Your task to perform on an android device: turn off sleep mode Image 0: 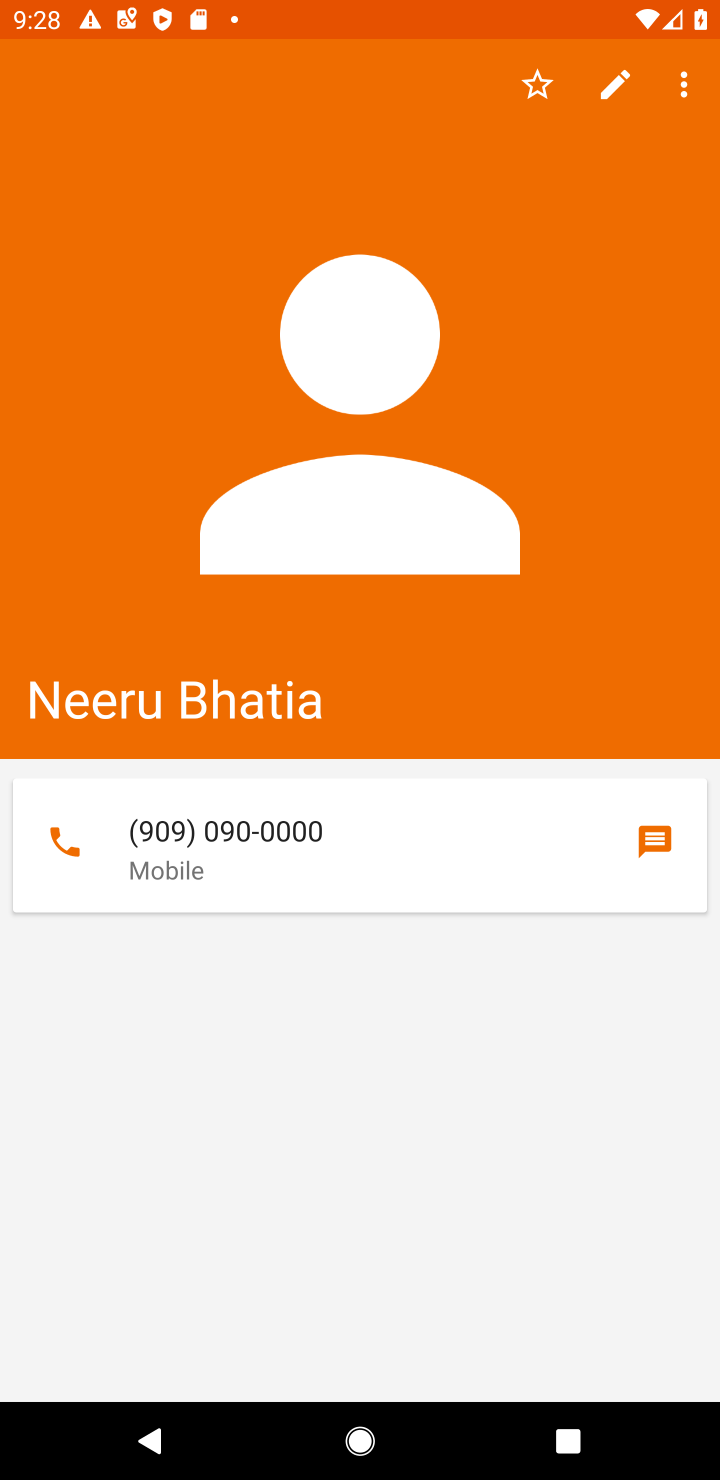
Step 0: press home button
Your task to perform on an android device: turn off sleep mode Image 1: 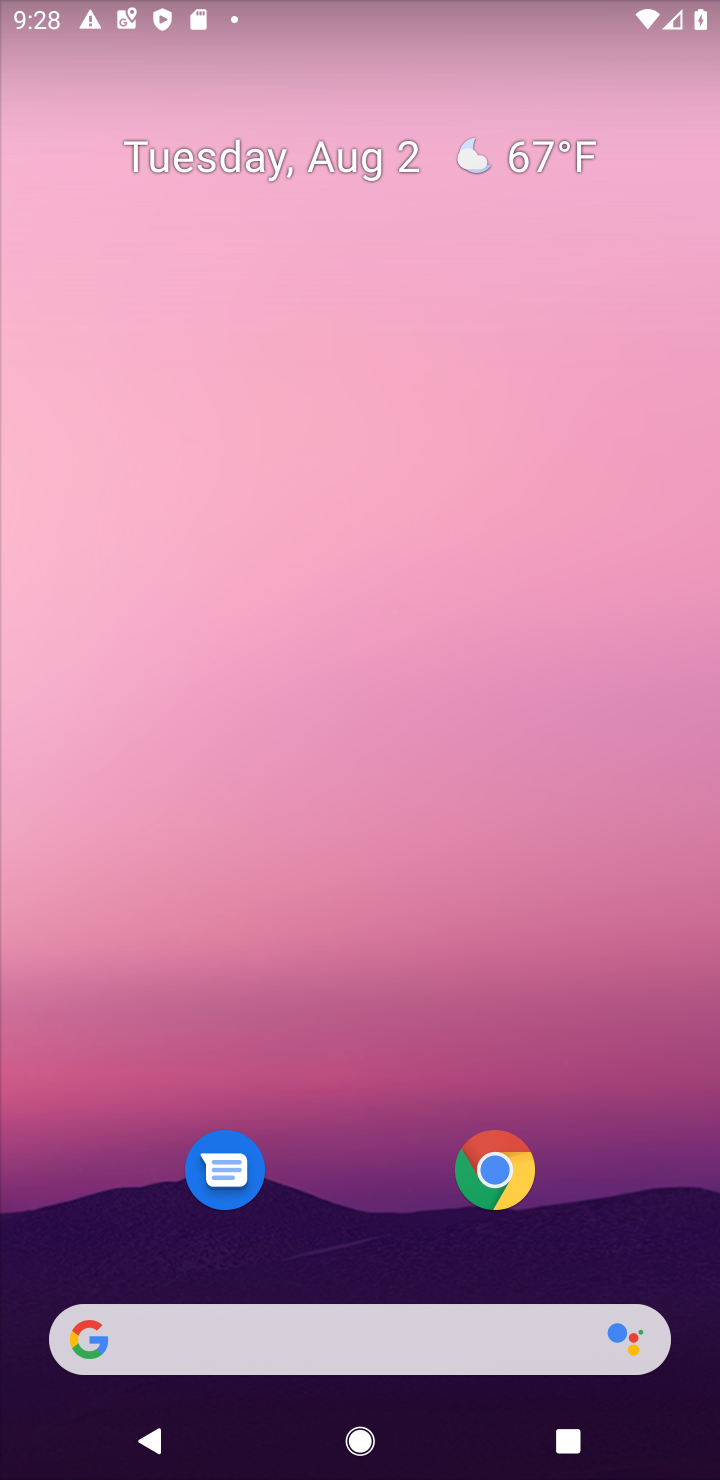
Step 1: drag from (356, 900) to (402, 343)
Your task to perform on an android device: turn off sleep mode Image 2: 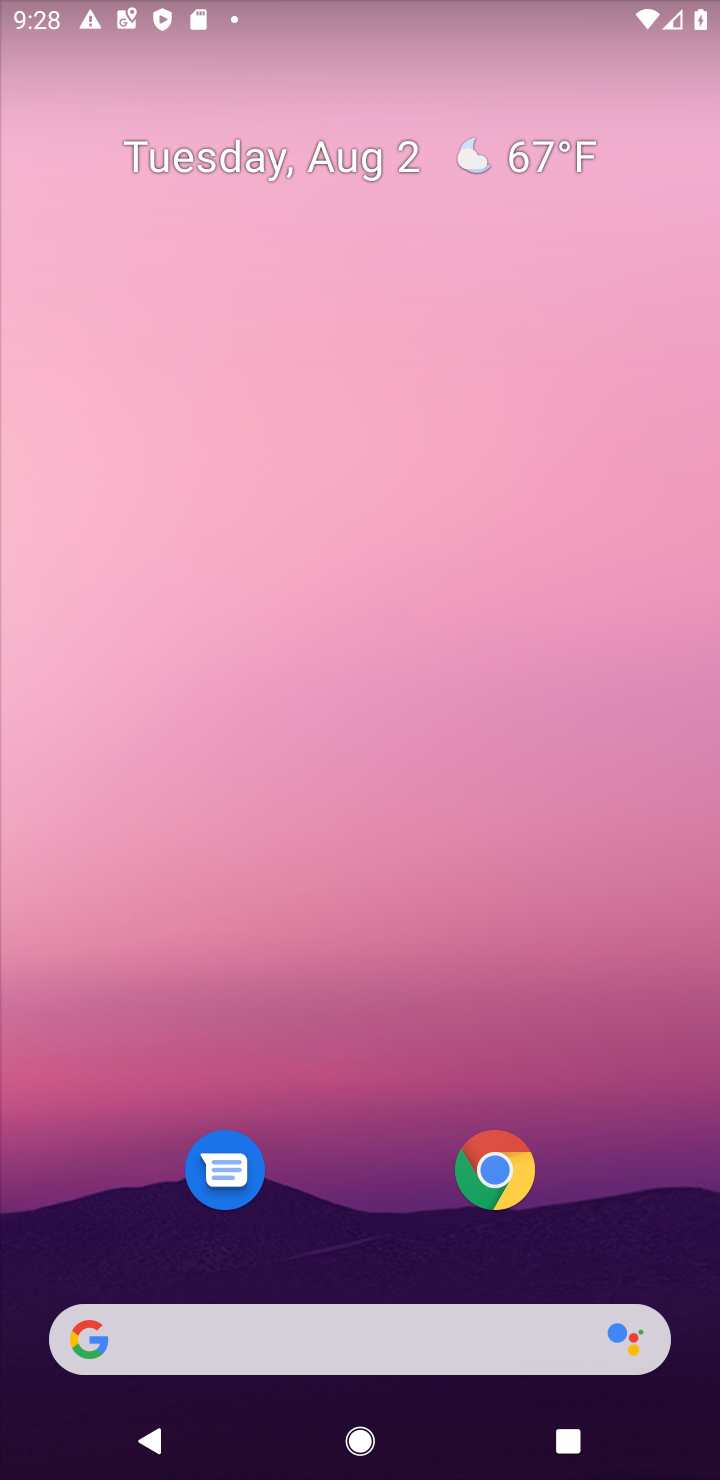
Step 2: drag from (350, 725) to (372, 83)
Your task to perform on an android device: turn off sleep mode Image 3: 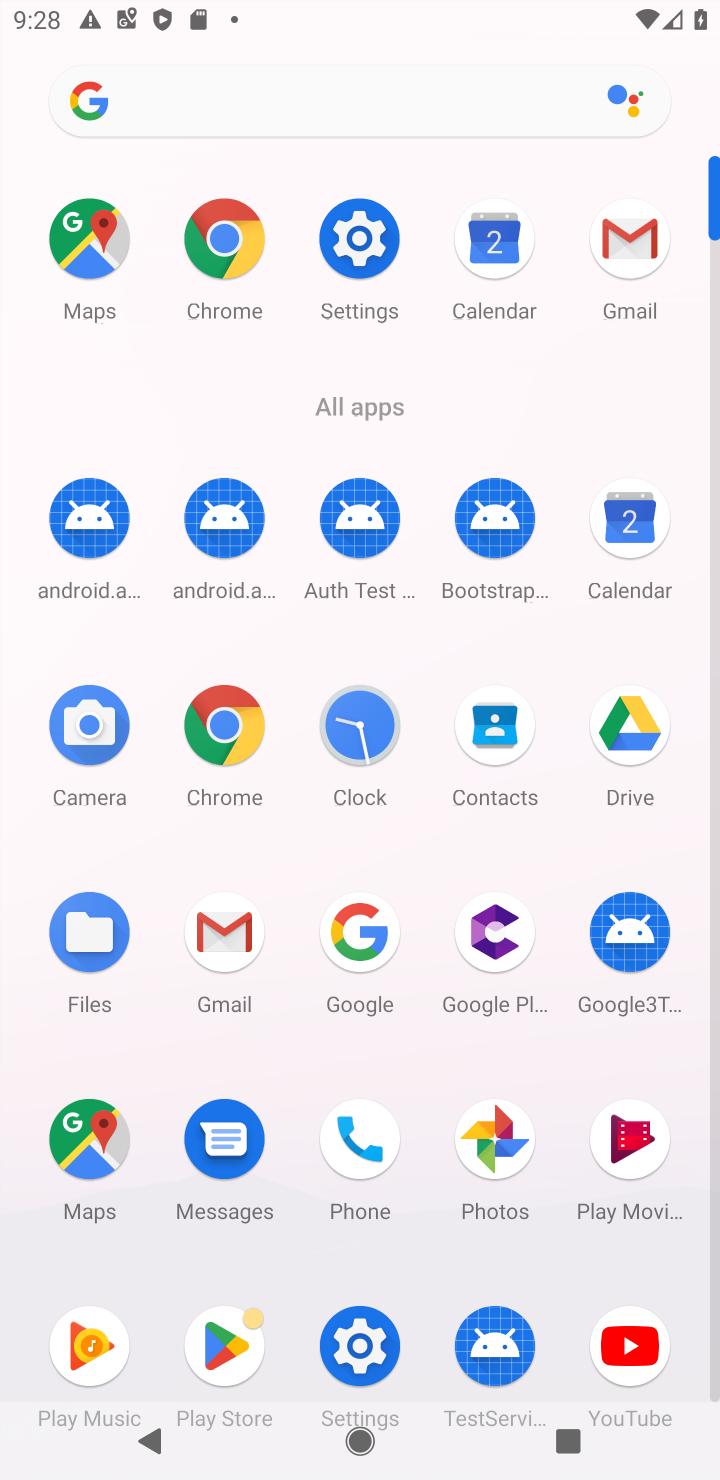
Step 3: click (352, 246)
Your task to perform on an android device: turn off sleep mode Image 4: 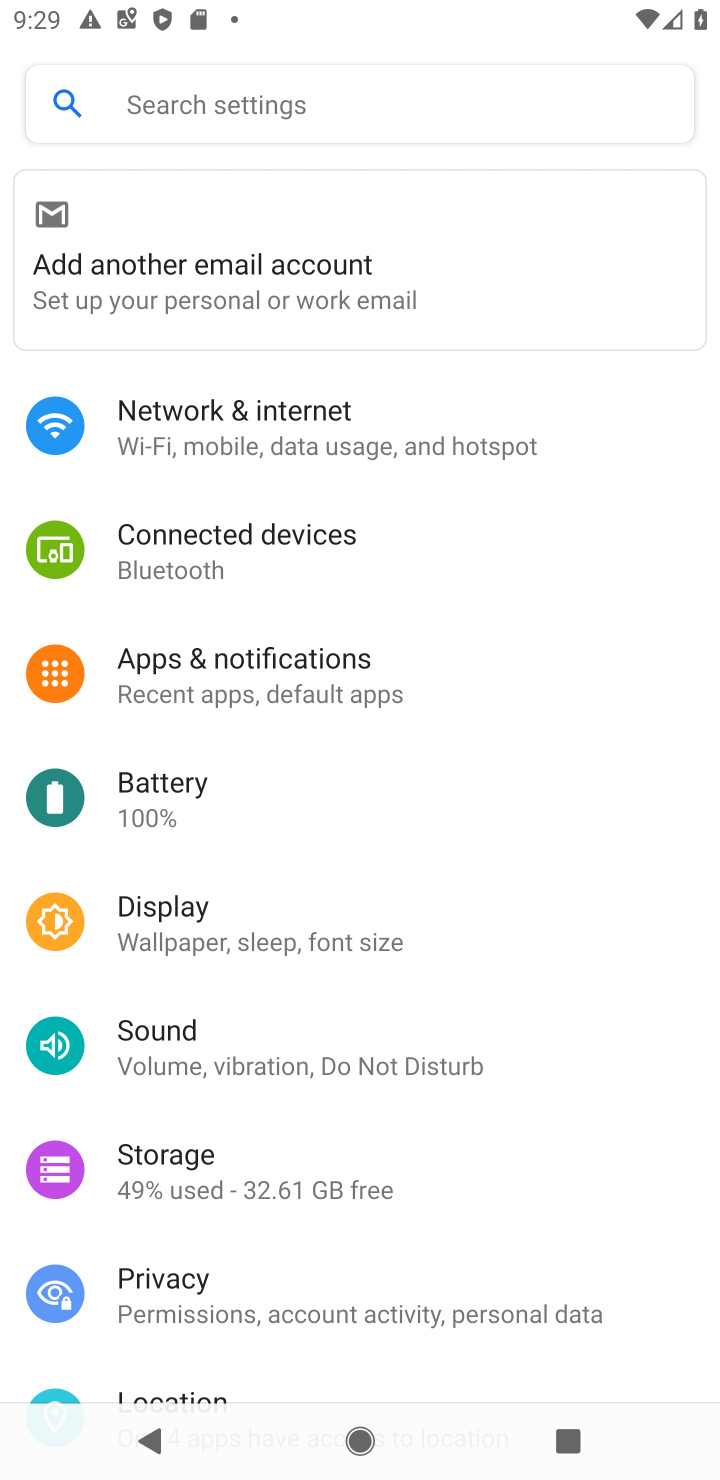
Step 4: task complete